Your task to perform on an android device: turn off improve location accuracy Image 0: 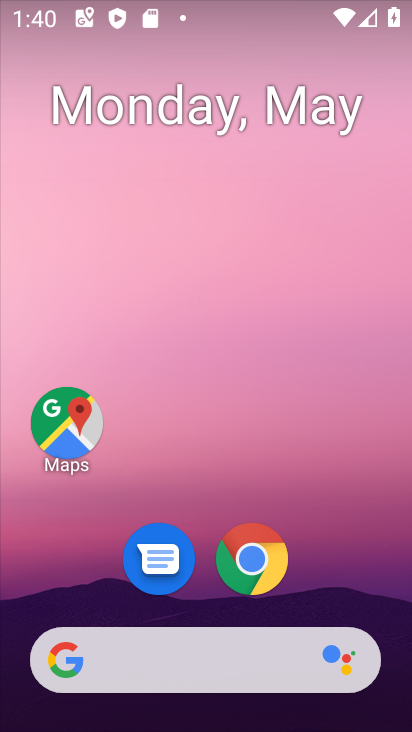
Step 0: drag from (159, 720) to (154, 136)
Your task to perform on an android device: turn off improve location accuracy Image 1: 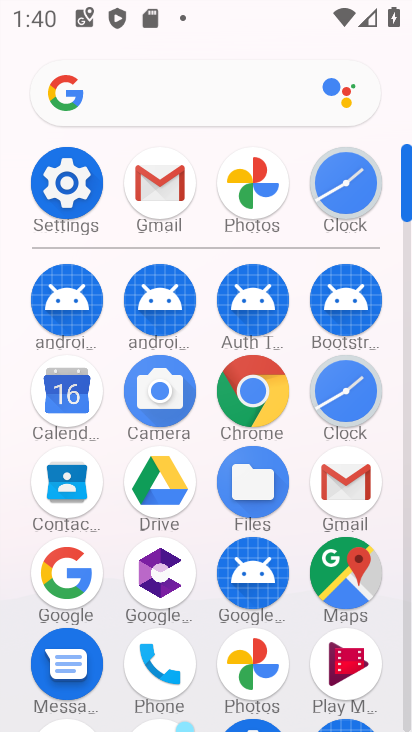
Step 1: click (84, 185)
Your task to perform on an android device: turn off improve location accuracy Image 2: 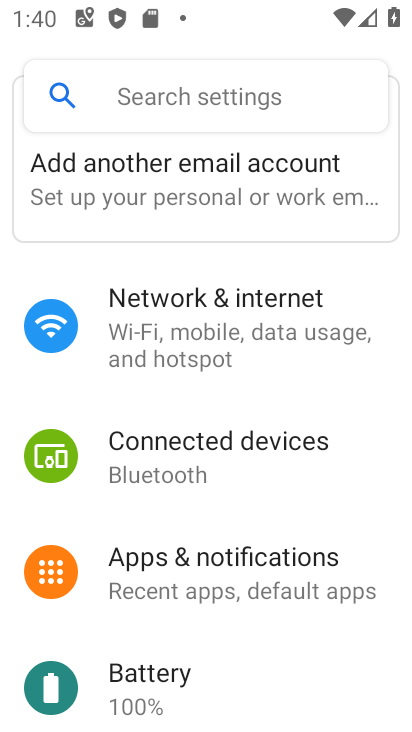
Step 2: drag from (211, 634) to (153, 224)
Your task to perform on an android device: turn off improve location accuracy Image 3: 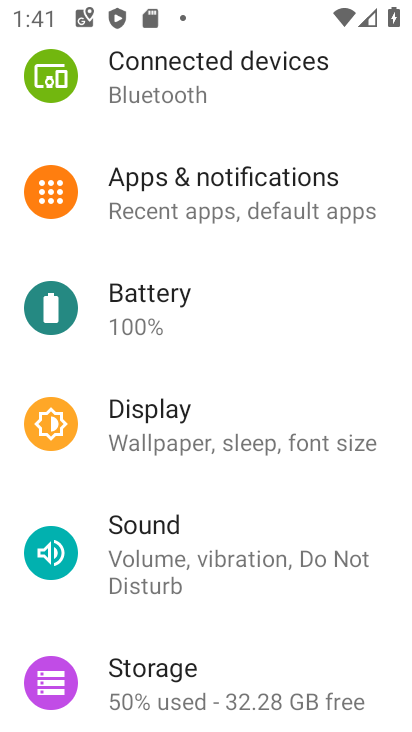
Step 3: drag from (240, 697) to (245, 259)
Your task to perform on an android device: turn off improve location accuracy Image 4: 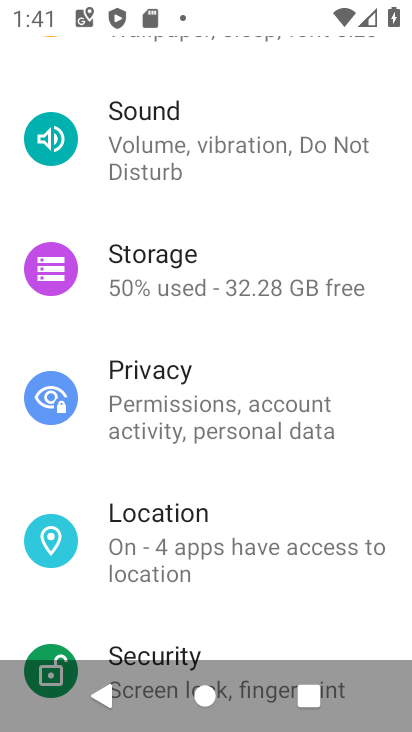
Step 4: click (295, 549)
Your task to perform on an android device: turn off improve location accuracy Image 5: 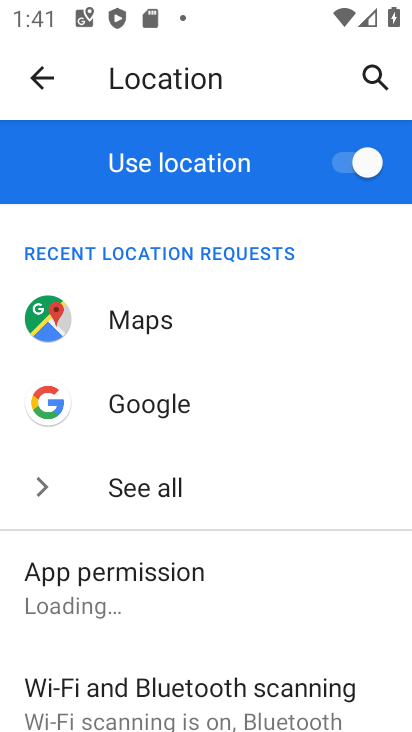
Step 5: drag from (204, 653) to (249, 18)
Your task to perform on an android device: turn off improve location accuracy Image 6: 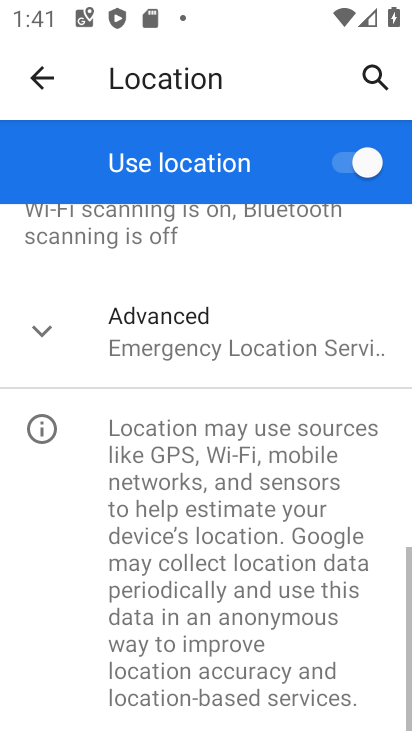
Step 6: click (212, 368)
Your task to perform on an android device: turn off improve location accuracy Image 7: 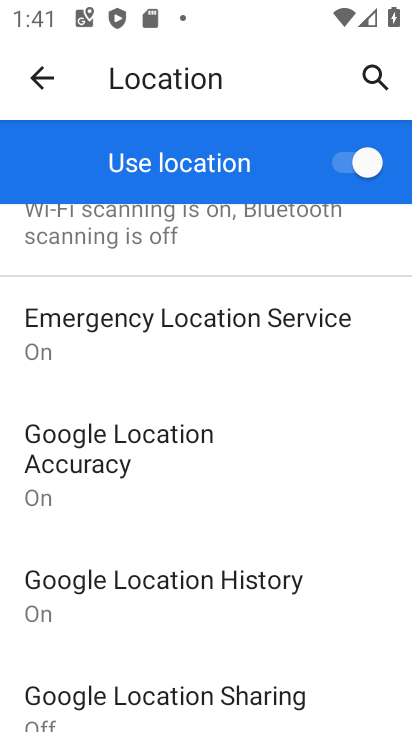
Step 7: click (98, 463)
Your task to perform on an android device: turn off improve location accuracy Image 8: 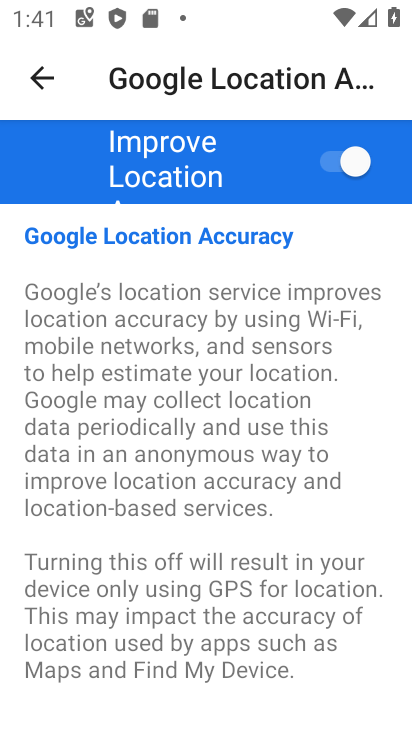
Step 8: click (340, 164)
Your task to perform on an android device: turn off improve location accuracy Image 9: 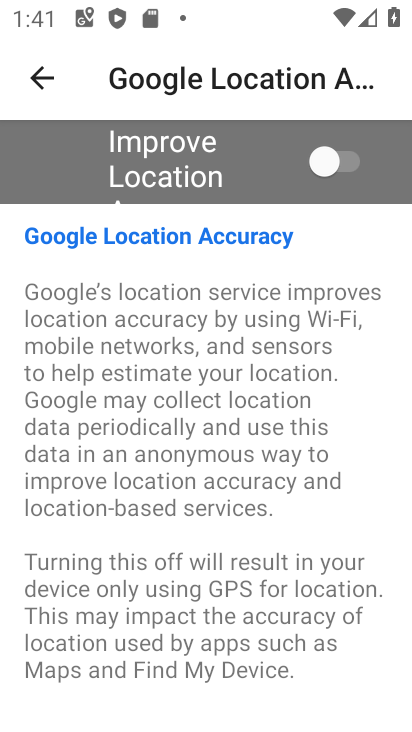
Step 9: task complete